Your task to perform on an android device: Open calendar and show me the second week of next month Image 0: 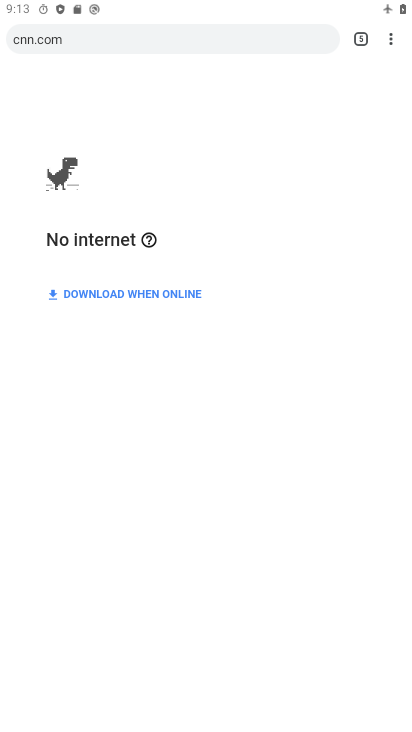
Step 0: press home button
Your task to perform on an android device: Open calendar and show me the second week of next month Image 1: 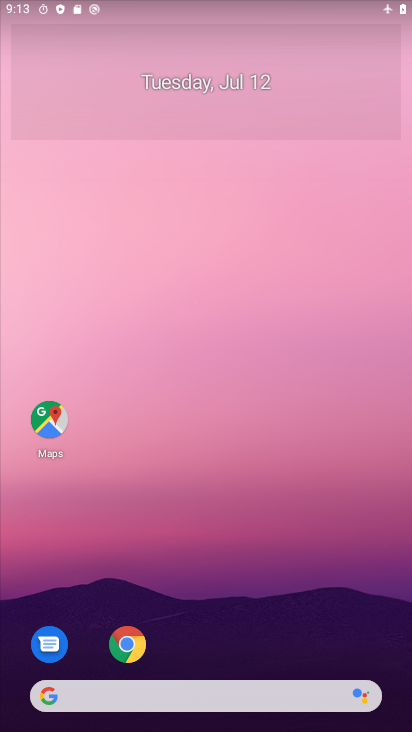
Step 1: drag from (209, 637) to (205, 179)
Your task to perform on an android device: Open calendar and show me the second week of next month Image 2: 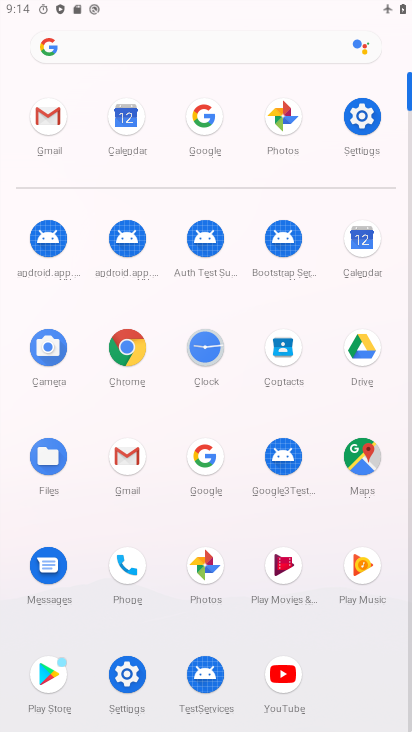
Step 2: click (362, 264)
Your task to perform on an android device: Open calendar and show me the second week of next month Image 3: 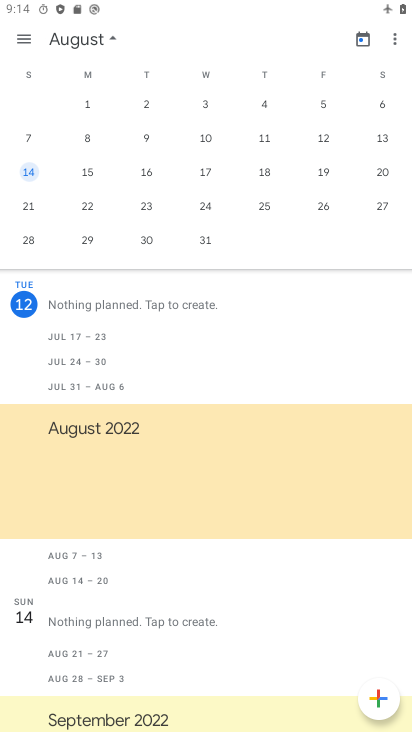
Step 3: click (87, 141)
Your task to perform on an android device: Open calendar and show me the second week of next month Image 4: 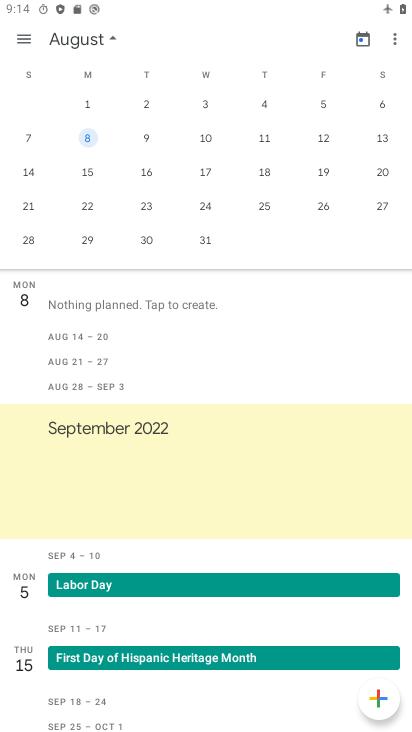
Step 4: click (23, 150)
Your task to perform on an android device: Open calendar and show me the second week of next month Image 5: 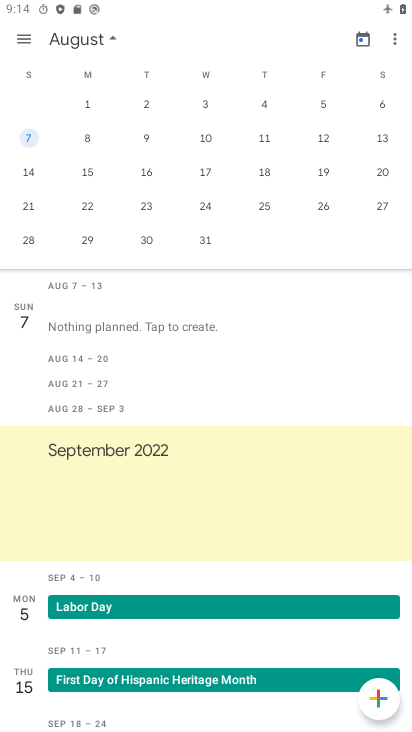
Step 5: task complete